Your task to perform on an android device: change notification settings in the gmail app Image 0: 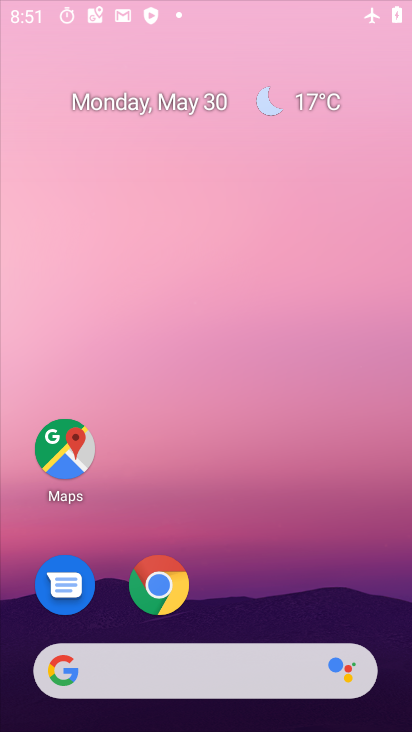
Step 0: drag from (169, 578) to (298, 4)
Your task to perform on an android device: change notification settings in the gmail app Image 1: 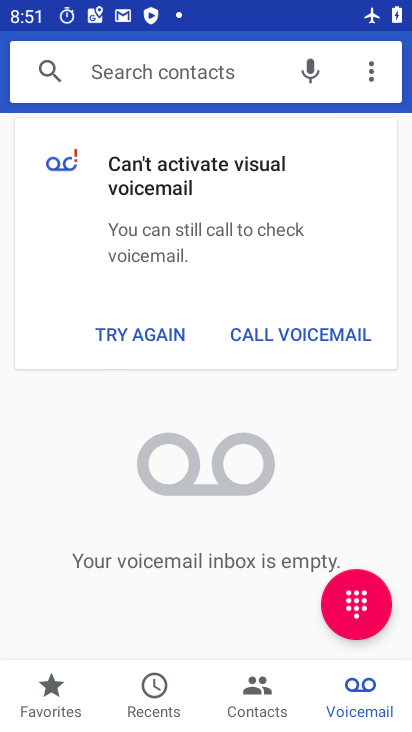
Step 1: press home button
Your task to perform on an android device: change notification settings in the gmail app Image 2: 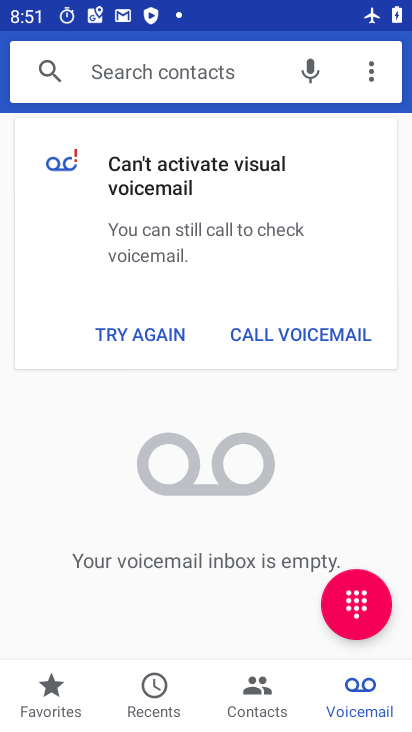
Step 2: press home button
Your task to perform on an android device: change notification settings in the gmail app Image 3: 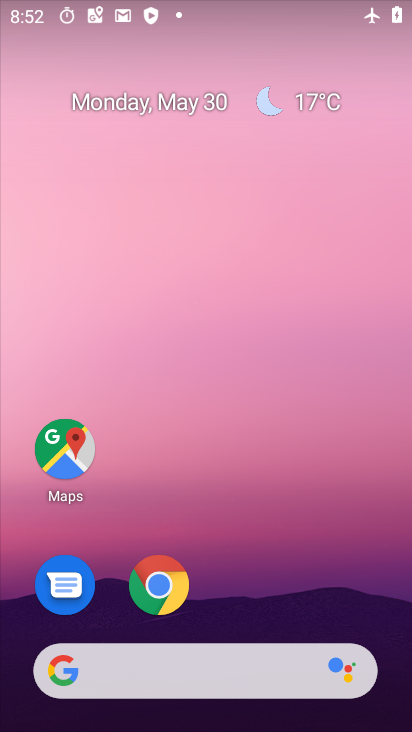
Step 3: drag from (225, 614) to (304, 207)
Your task to perform on an android device: change notification settings in the gmail app Image 4: 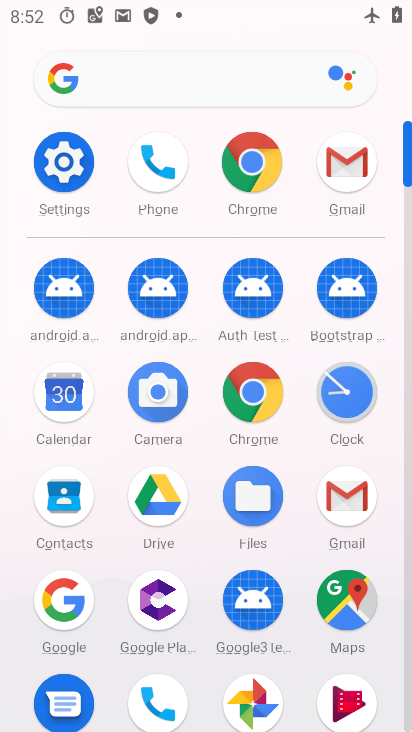
Step 4: click (68, 176)
Your task to perform on an android device: change notification settings in the gmail app Image 5: 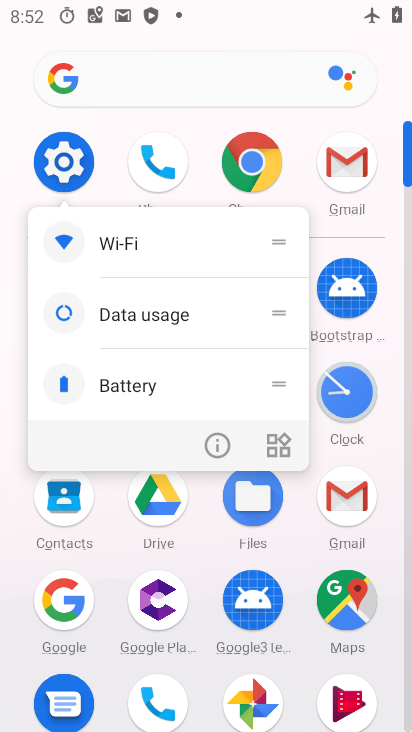
Step 5: click (320, 470)
Your task to perform on an android device: change notification settings in the gmail app Image 6: 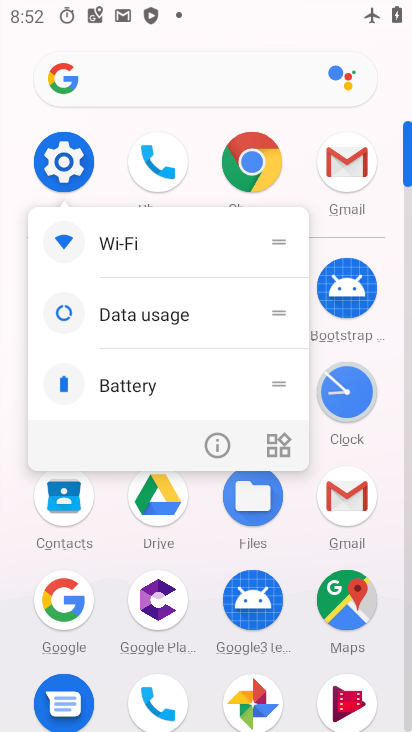
Step 6: click (347, 479)
Your task to perform on an android device: change notification settings in the gmail app Image 7: 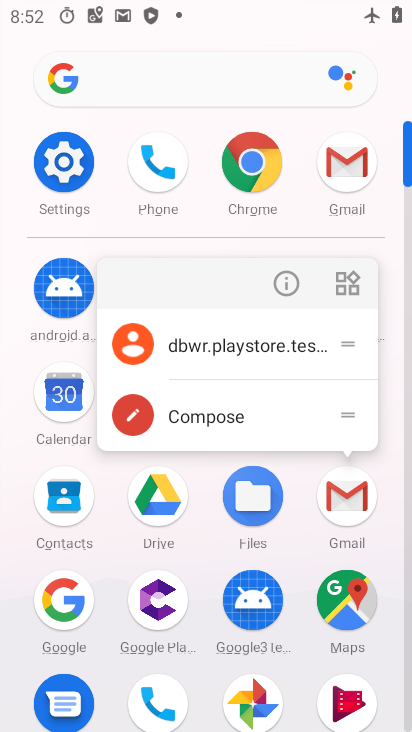
Step 7: click (341, 475)
Your task to perform on an android device: change notification settings in the gmail app Image 8: 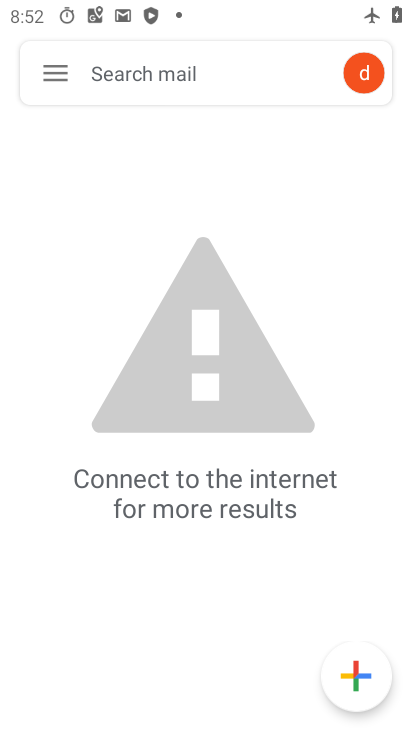
Step 8: click (70, 93)
Your task to perform on an android device: change notification settings in the gmail app Image 9: 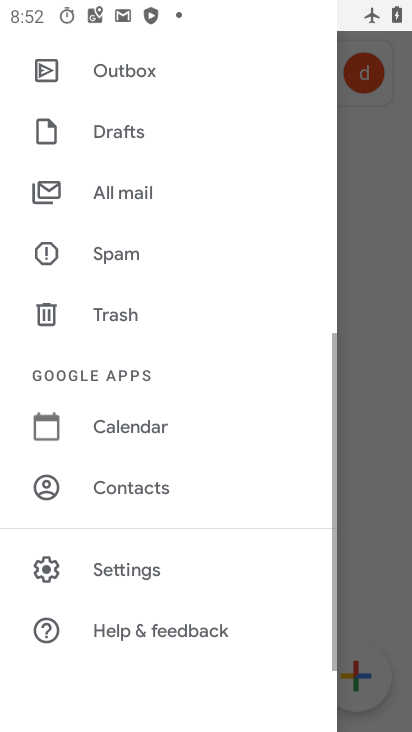
Step 9: click (123, 574)
Your task to perform on an android device: change notification settings in the gmail app Image 10: 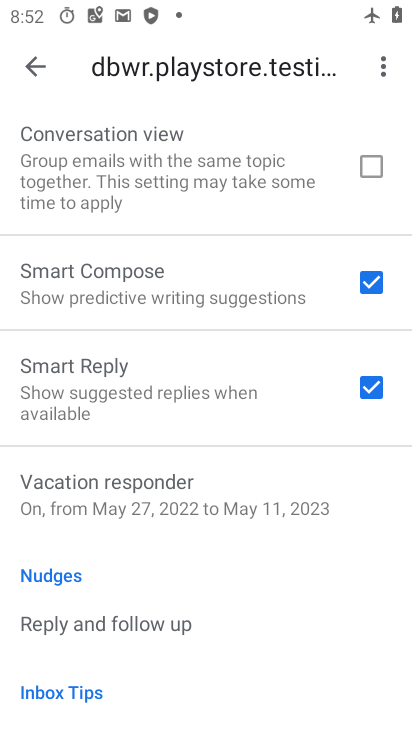
Step 10: drag from (218, 722) to (278, 708)
Your task to perform on an android device: change notification settings in the gmail app Image 11: 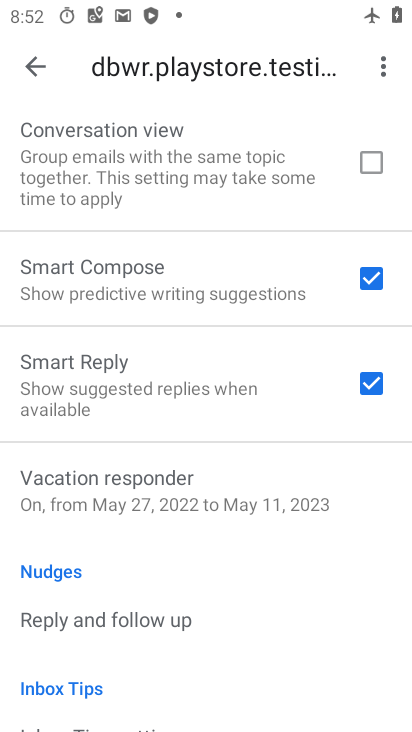
Step 11: drag from (224, 198) to (262, 620)
Your task to perform on an android device: change notification settings in the gmail app Image 12: 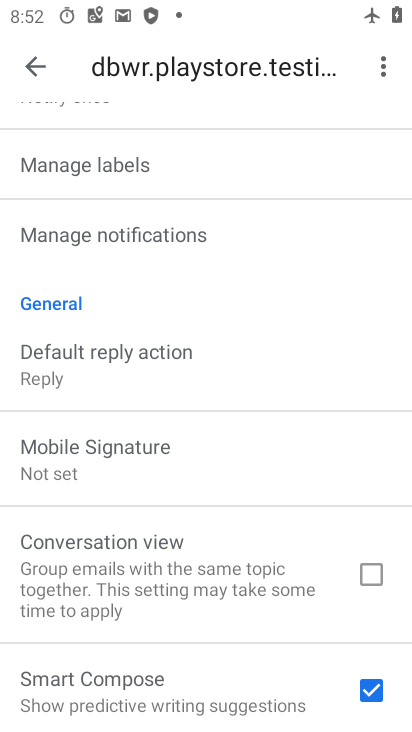
Step 12: click (151, 239)
Your task to perform on an android device: change notification settings in the gmail app Image 13: 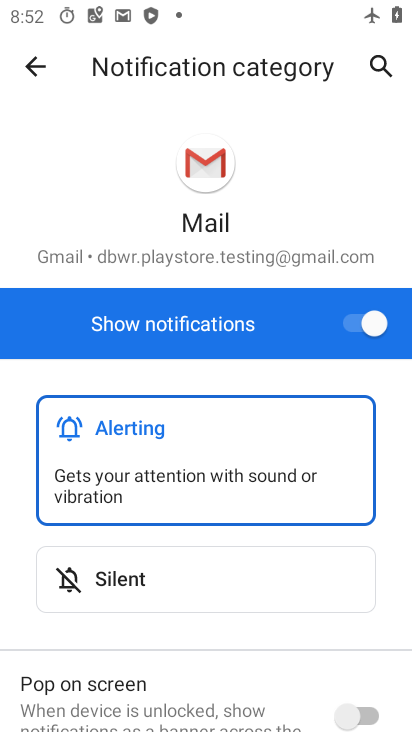
Step 13: click (367, 303)
Your task to perform on an android device: change notification settings in the gmail app Image 14: 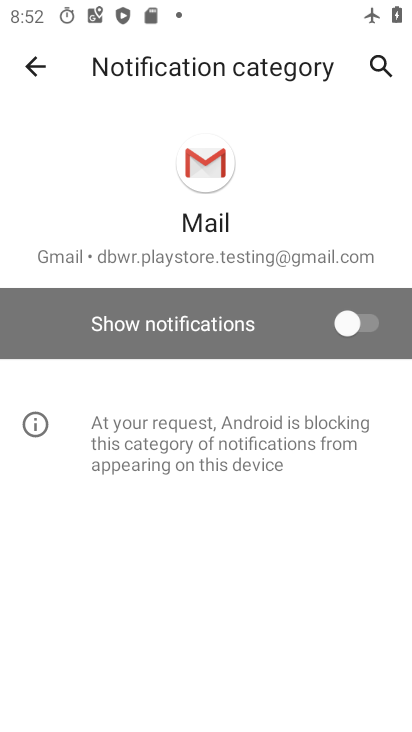
Step 14: task complete